Your task to perform on an android device: Open display settings Image 0: 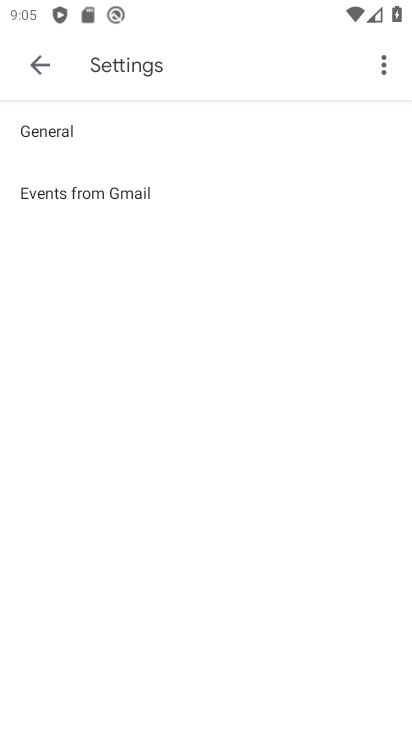
Step 0: press home button
Your task to perform on an android device: Open display settings Image 1: 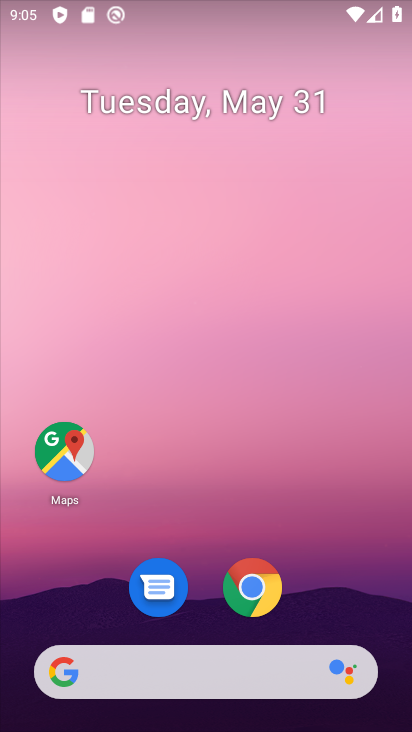
Step 1: drag from (259, 514) to (252, 56)
Your task to perform on an android device: Open display settings Image 2: 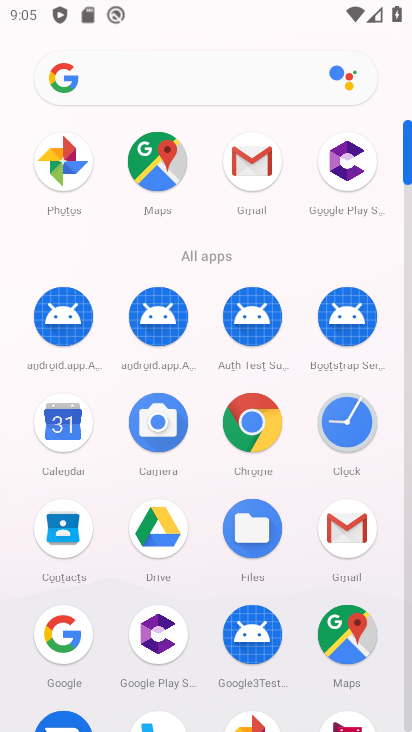
Step 2: drag from (206, 381) to (224, 107)
Your task to perform on an android device: Open display settings Image 3: 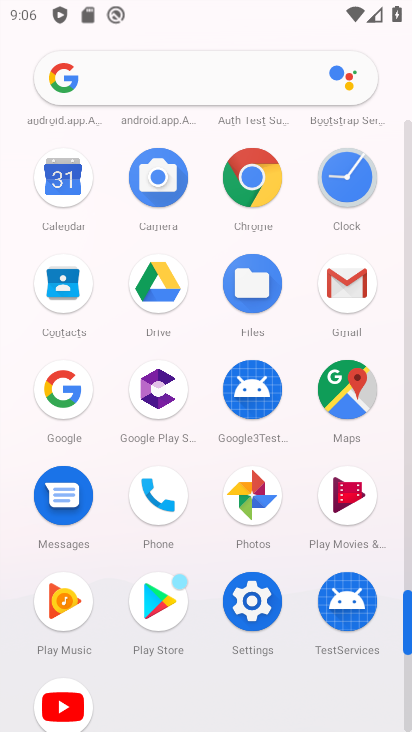
Step 3: click (261, 605)
Your task to perform on an android device: Open display settings Image 4: 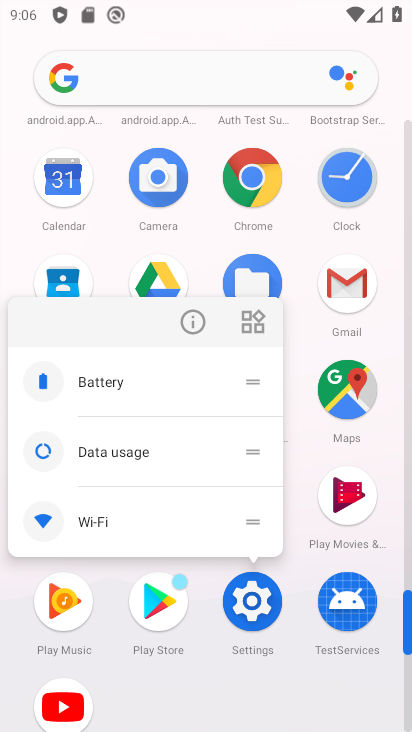
Step 4: click (249, 597)
Your task to perform on an android device: Open display settings Image 5: 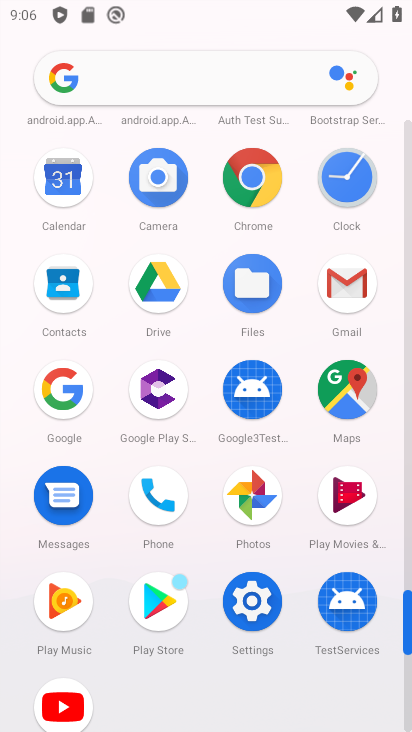
Step 5: click (249, 597)
Your task to perform on an android device: Open display settings Image 6: 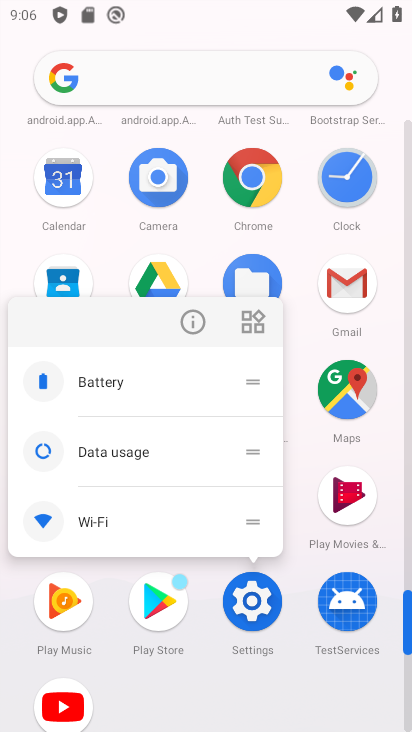
Step 6: click (249, 597)
Your task to perform on an android device: Open display settings Image 7: 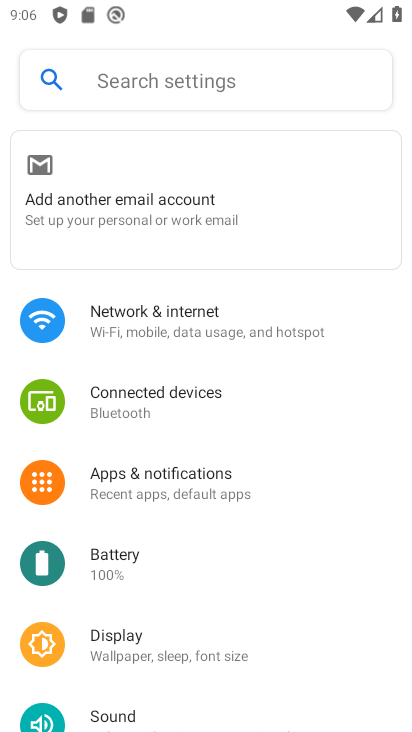
Step 7: click (134, 646)
Your task to perform on an android device: Open display settings Image 8: 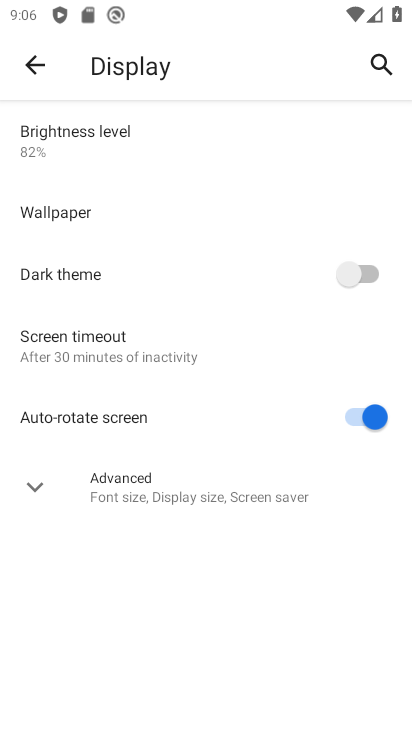
Step 8: task complete